Your task to perform on an android device: Open settings on Google Maps Image 0: 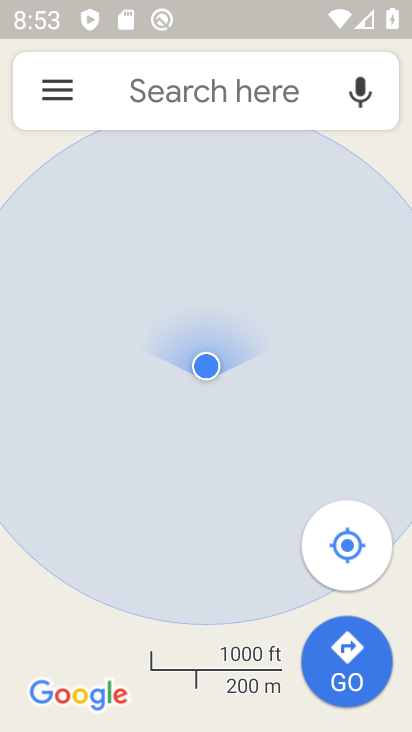
Step 0: press home button
Your task to perform on an android device: Open settings on Google Maps Image 1: 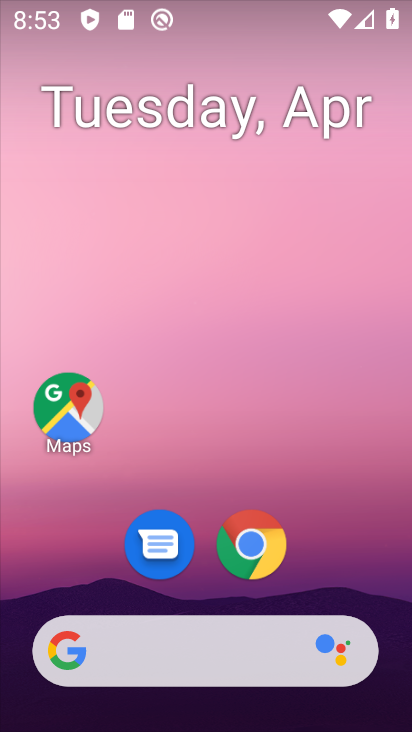
Step 1: click (89, 411)
Your task to perform on an android device: Open settings on Google Maps Image 2: 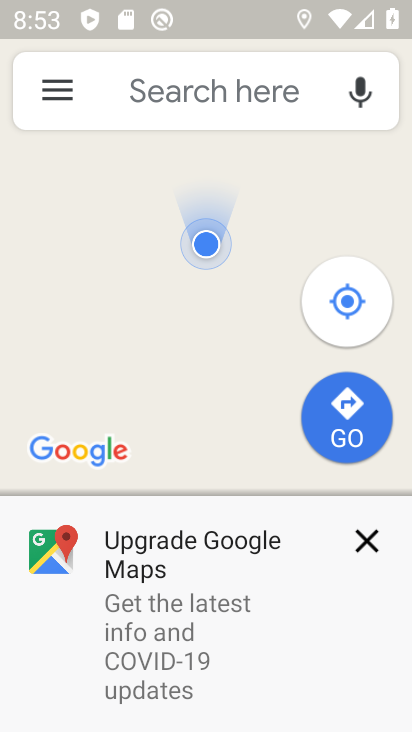
Step 2: click (366, 539)
Your task to perform on an android device: Open settings on Google Maps Image 3: 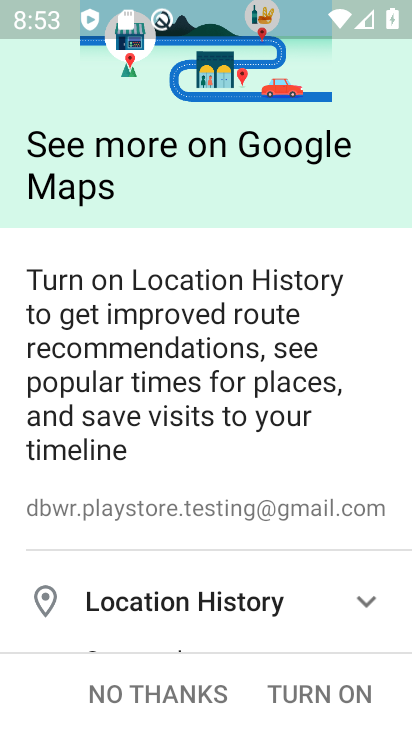
Step 3: task complete